Your task to perform on an android device: What is the recent news? Image 0: 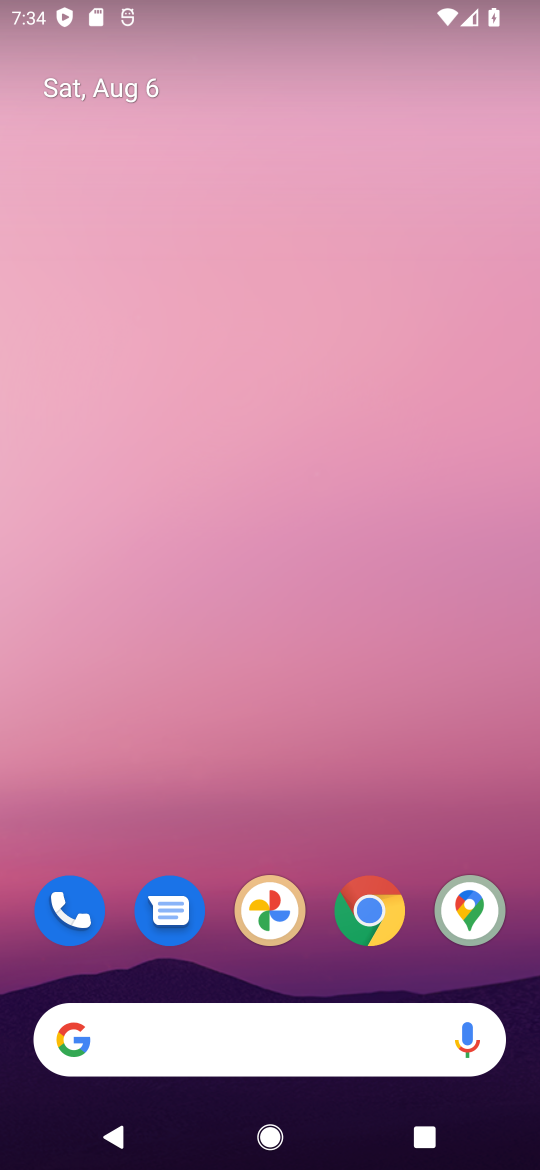
Step 0: drag from (40, 456) to (535, 375)
Your task to perform on an android device: What is the recent news? Image 1: 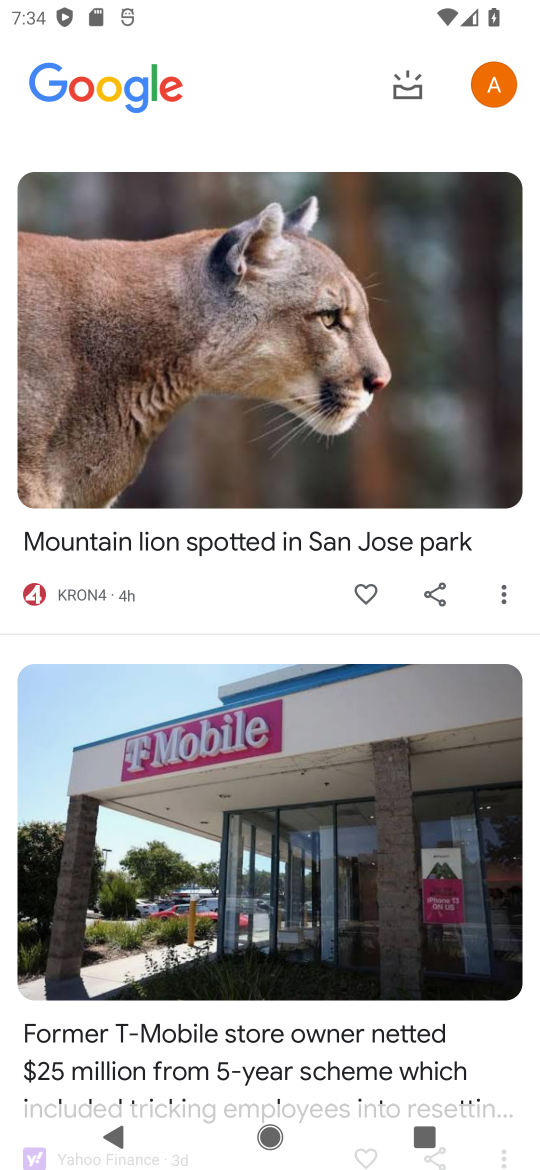
Step 1: task complete